Your task to perform on an android device: Open Youtube and go to the subscriptions tab Image 0: 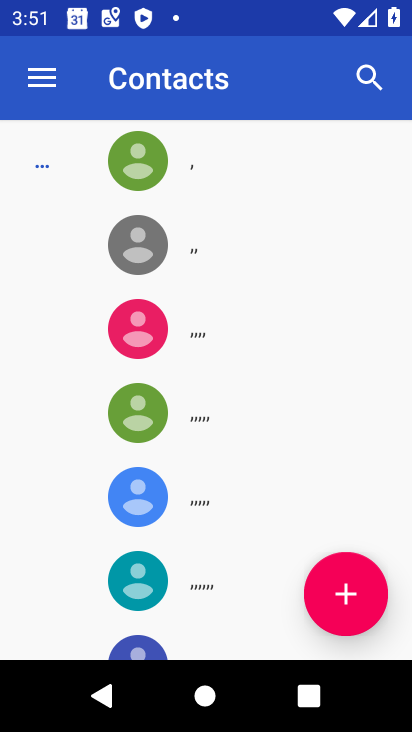
Step 0: press back button
Your task to perform on an android device: Open Youtube and go to the subscriptions tab Image 1: 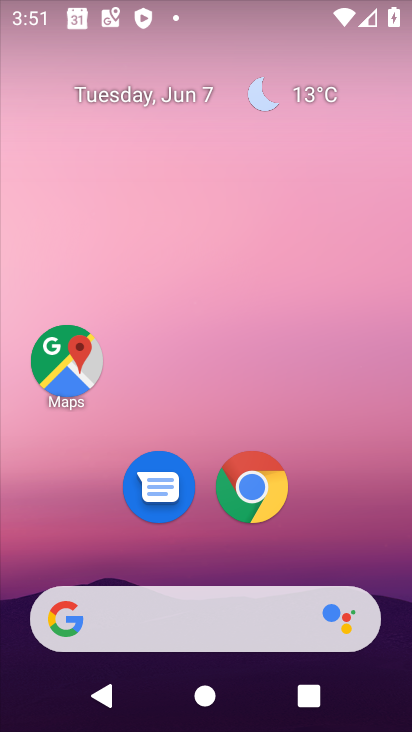
Step 1: drag from (185, 552) to (201, 82)
Your task to perform on an android device: Open Youtube and go to the subscriptions tab Image 2: 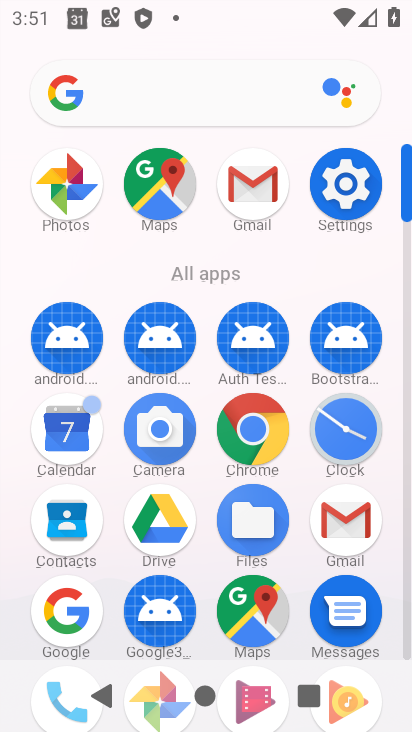
Step 2: drag from (197, 602) to (280, 90)
Your task to perform on an android device: Open Youtube and go to the subscriptions tab Image 3: 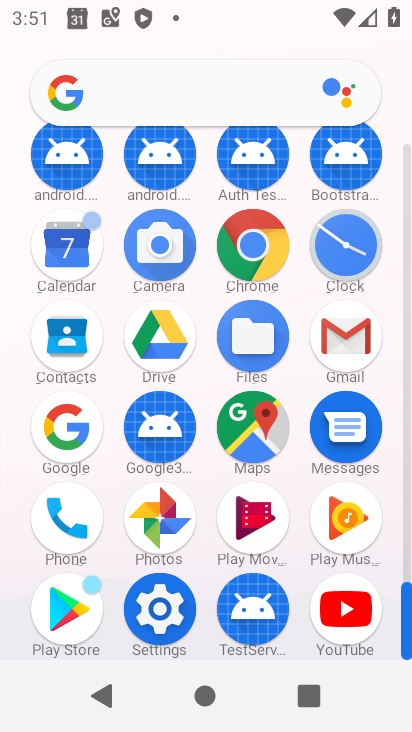
Step 3: click (337, 614)
Your task to perform on an android device: Open Youtube and go to the subscriptions tab Image 4: 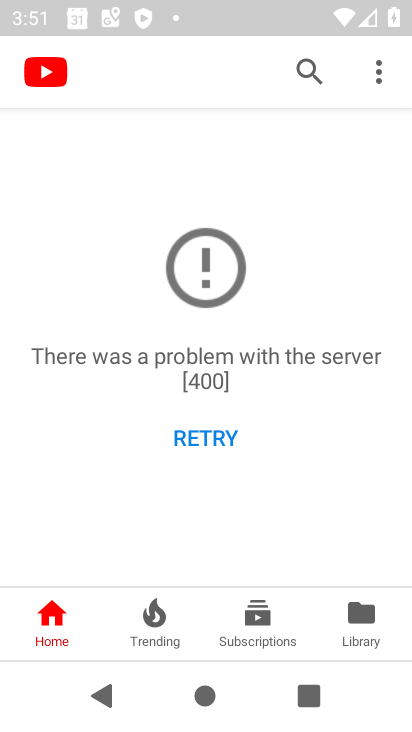
Step 4: click (252, 615)
Your task to perform on an android device: Open Youtube and go to the subscriptions tab Image 5: 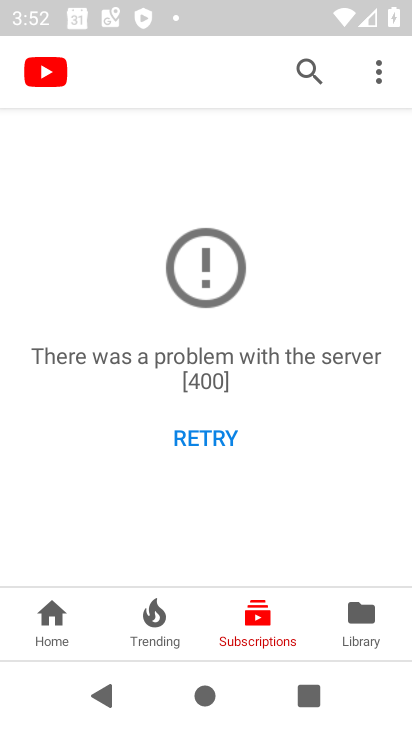
Step 5: task complete